Your task to perform on an android device: Turn on the flashlight Image 0: 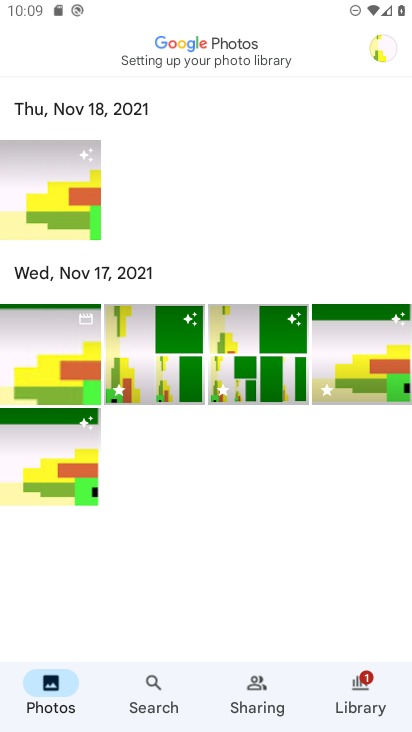
Step 0: press home button
Your task to perform on an android device: Turn on the flashlight Image 1: 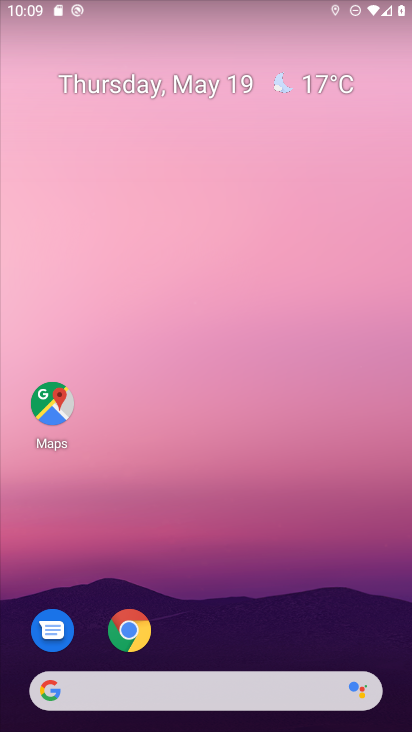
Step 1: drag from (348, 490) to (182, 179)
Your task to perform on an android device: Turn on the flashlight Image 2: 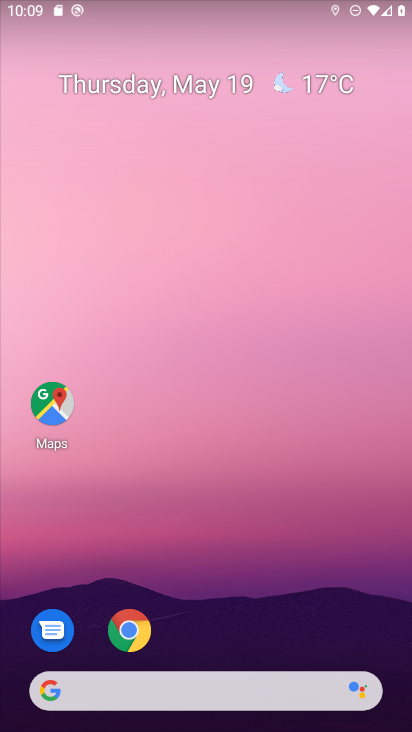
Step 2: drag from (224, 563) to (148, 10)
Your task to perform on an android device: Turn on the flashlight Image 3: 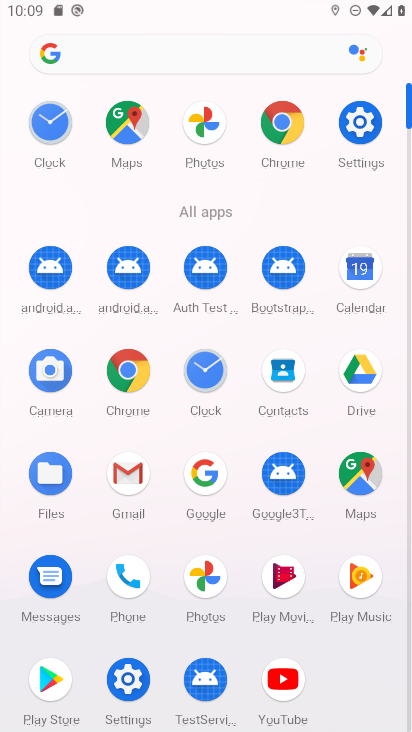
Step 3: click (355, 120)
Your task to perform on an android device: Turn on the flashlight Image 4: 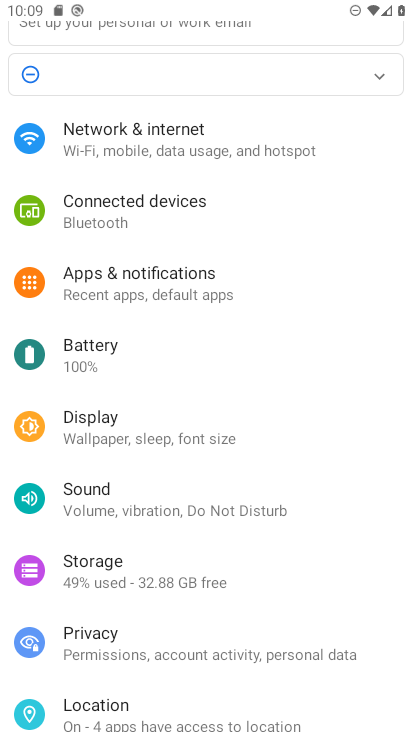
Step 4: click (112, 278)
Your task to perform on an android device: Turn on the flashlight Image 5: 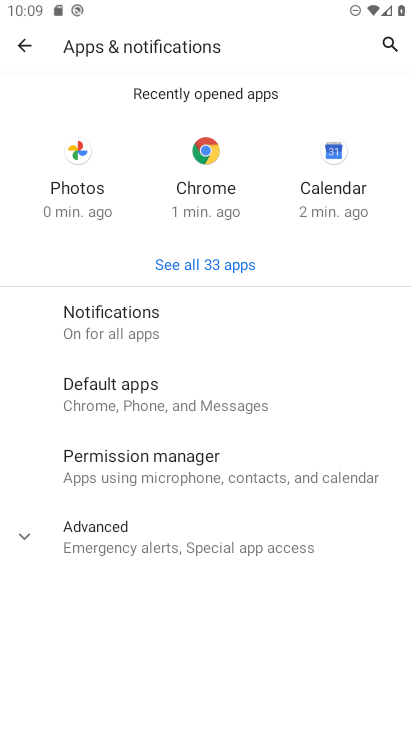
Step 5: task complete